Your task to perform on an android device: turn on bluetooth scan Image 0: 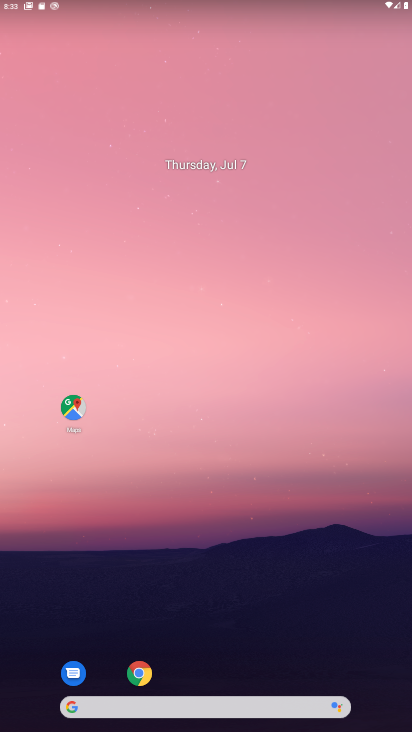
Step 0: drag from (290, 533) to (174, 14)
Your task to perform on an android device: turn on bluetooth scan Image 1: 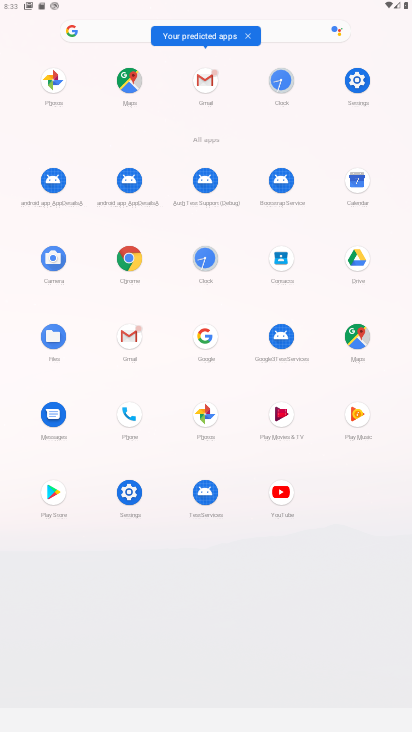
Step 1: click (354, 80)
Your task to perform on an android device: turn on bluetooth scan Image 2: 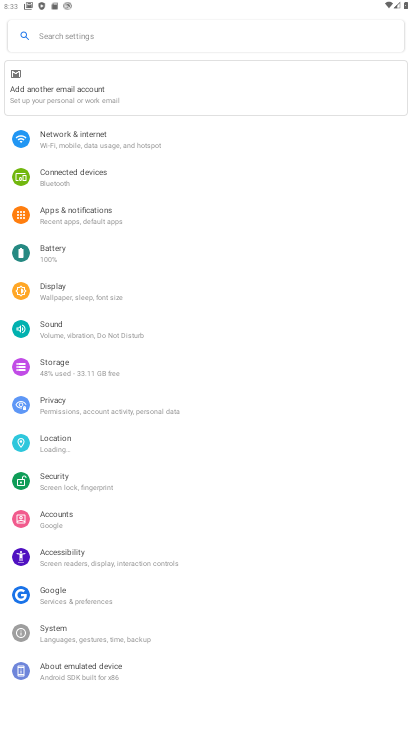
Step 2: click (127, 444)
Your task to perform on an android device: turn on bluetooth scan Image 3: 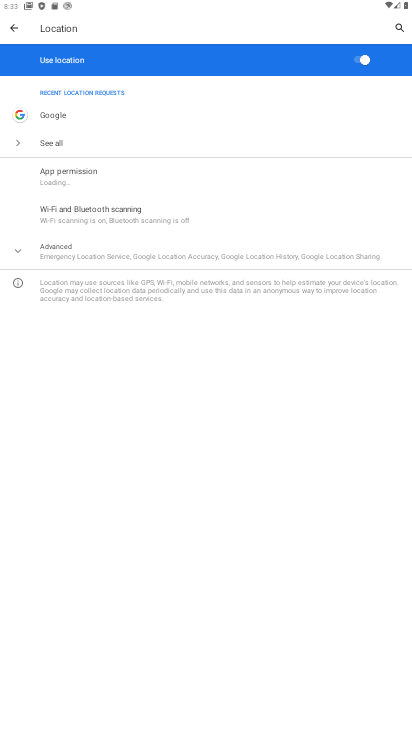
Step 3: click (111, 208)
Your task to perform on an android device: turn on bluetooth scan Image 4: 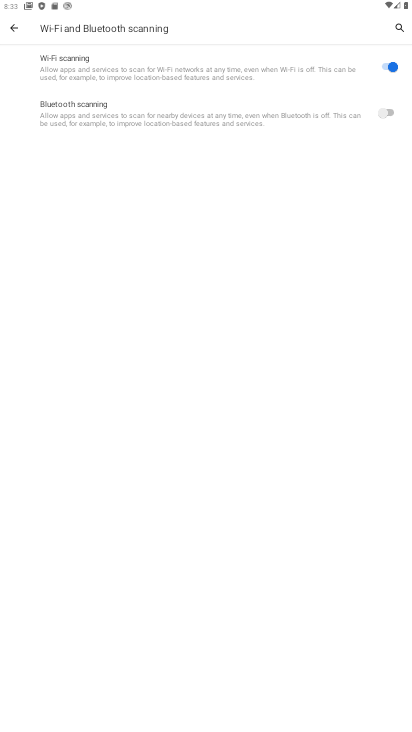
Step 4: click (390, 117)
Your task to perform on an android device: turn on bluetooth scan Image 5: 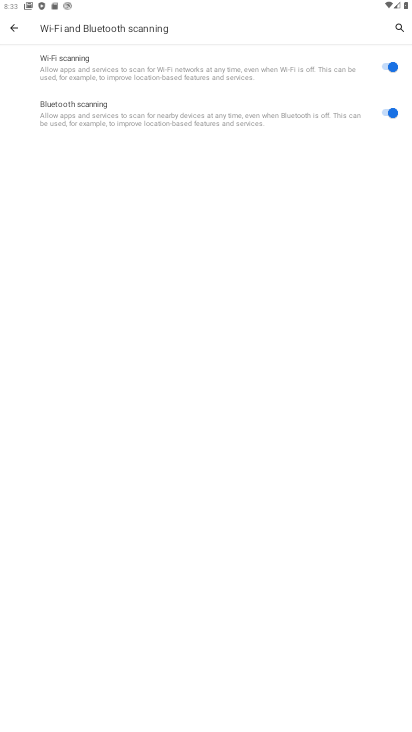
Step 5: task complete